Your task to perform on an android device: Open the Play Movies app and select the watchlist tab. Image 0: 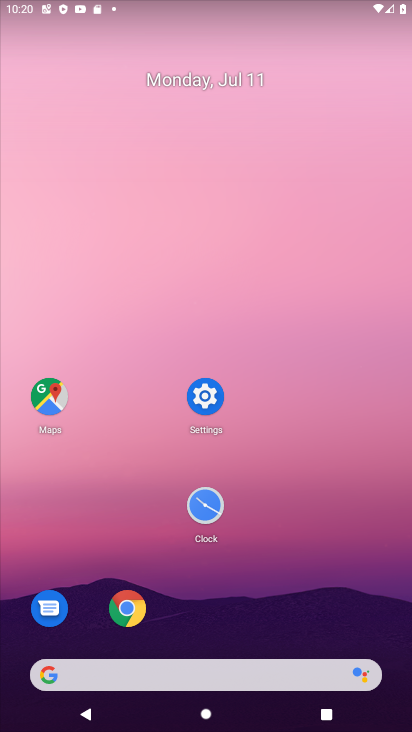
Step 0: drag from (393, 684) to (370, 179)
Your task to perform on an android device: Open the Play Movies app and select the watchlist tab. Image 1: 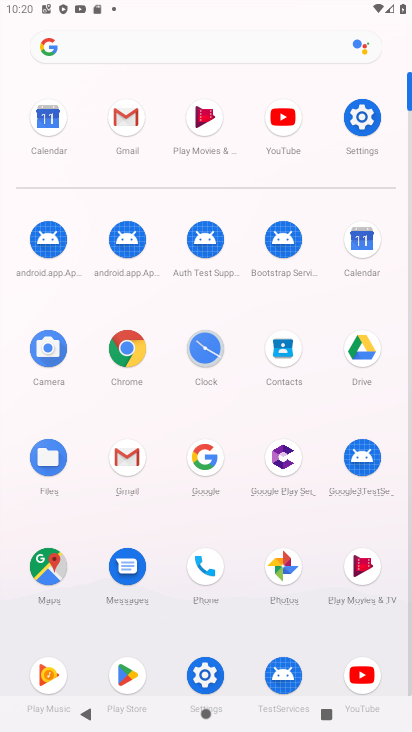
Step 1: click (375, 561)
Your task to perform on an android device: Open the Play Movies app and select the watchlist tab. Image 2: 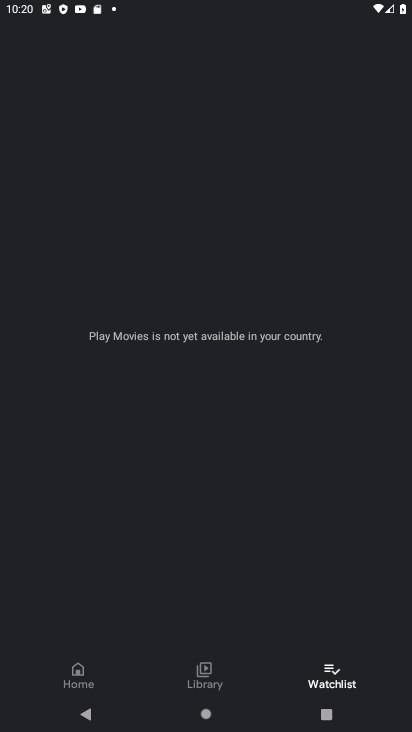
Step 2: task complete